Your task to perform on an android device: add a contact in the contacts app Image 0: 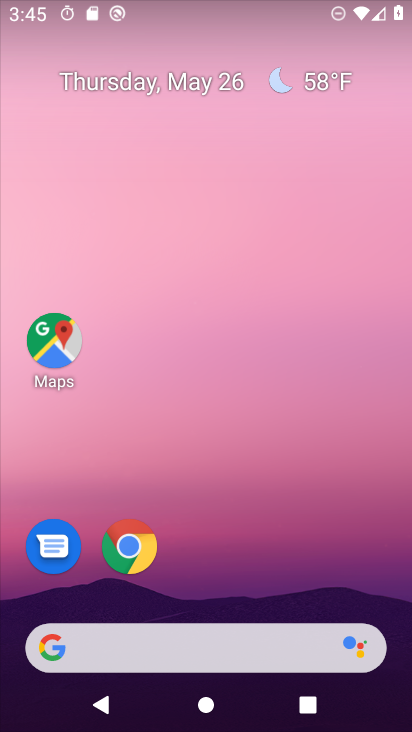
Step 0: drag from (228, 599) to (234, 58)
Your task to perform on an android device: add a contact in the contacts app Image 1: 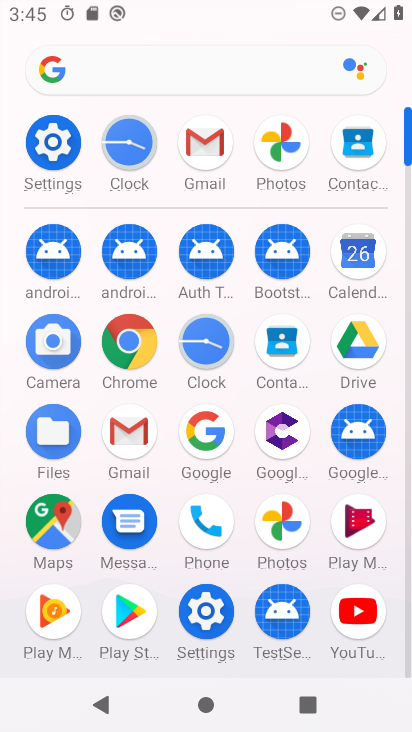
Step 1: click (279, 336)
Your task to perform on an android device: add a contact in the contacts app Image 2: 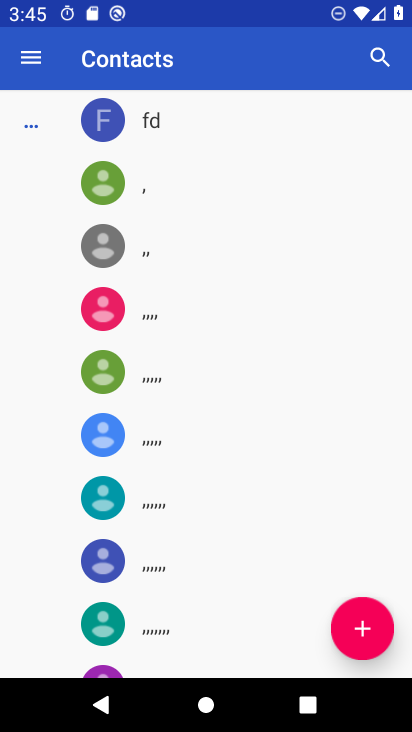
Step 2: click (359, 622)
Your task to perform on an android device: add a contact in the contacts app Image 3: 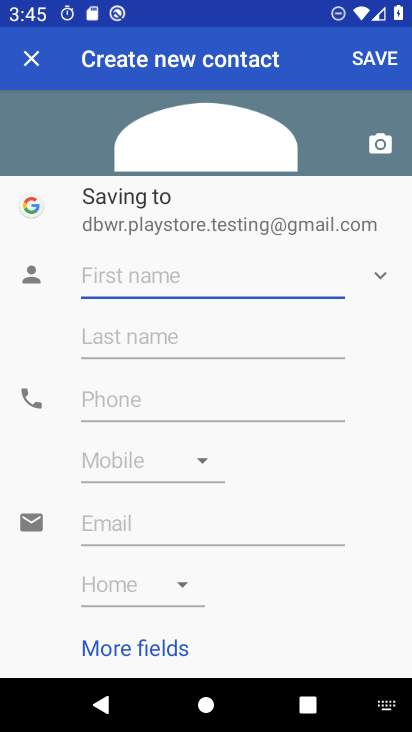
Step 3: type "hctdxrdf"
Your task to perform on an android device: add a contact in the contacts app Image 4: 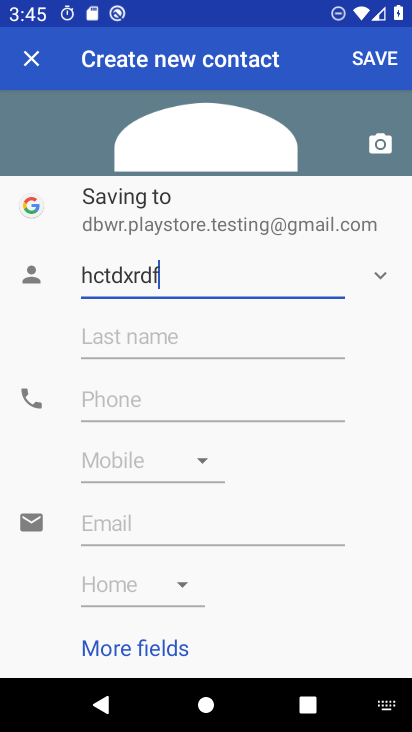
Step 4: click (377, 60)
Your task to perform on an android device: add a contact in the contacts app Image 5: 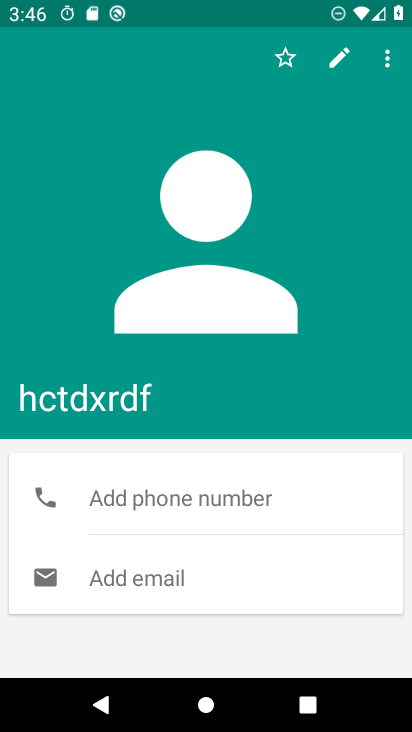
Step 5: task complete